Your task to perform on an android device: turn off smart reply in the gmail app Image 0: 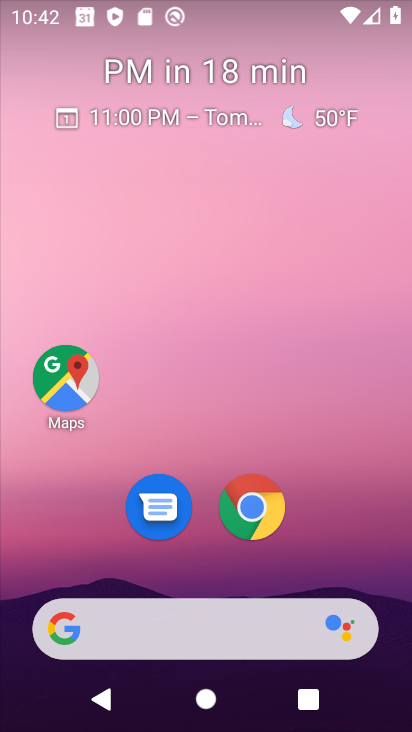
Step 0: drag from (335, 531) to (384, 137)
Your task to perform on an android device: turn off smart reply in the gmail app Image 1: 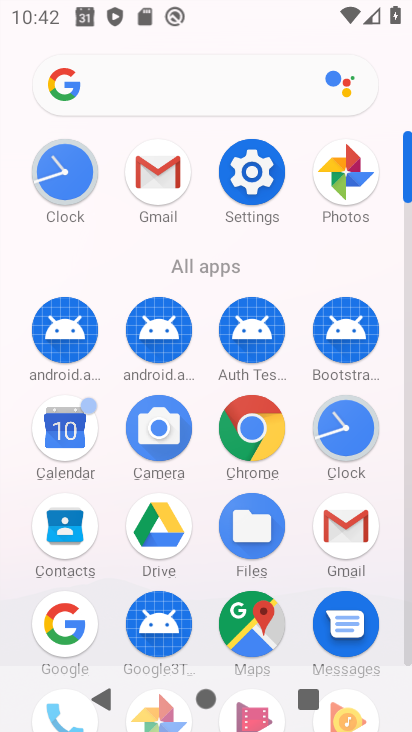
Step 1: click (161, 195)
Your task to perform on an android device: turn off smart reply in the gmail app Image 2: 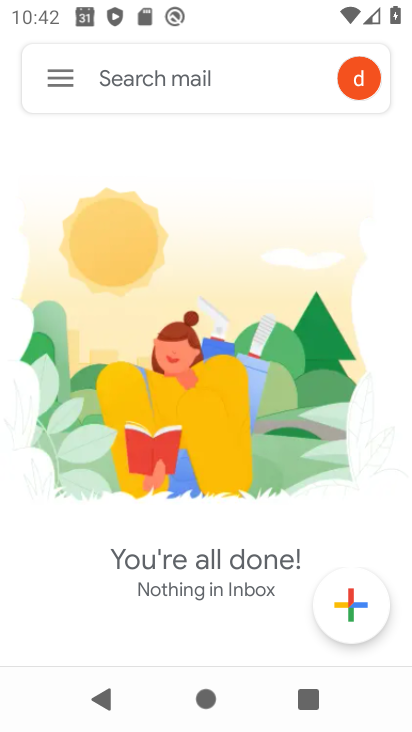
Step 2: click (61, 81)
Your task to perform on an android device: turn off smart reply in the gmail app Image 3: 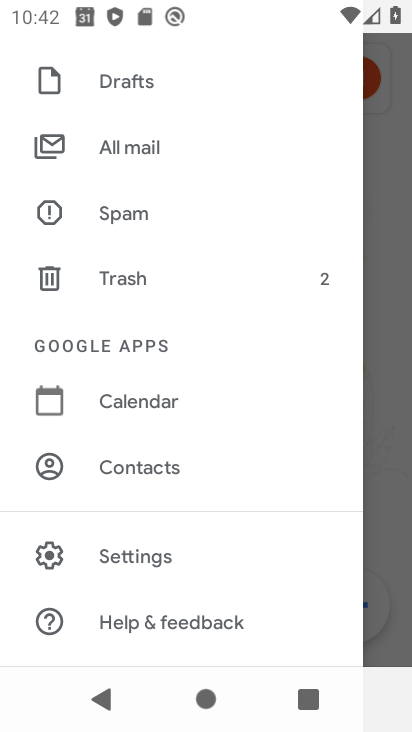
Step 3: click (188, 558)
Your task to perform on an android device: turn off smart reply in the gmail app Image 4: 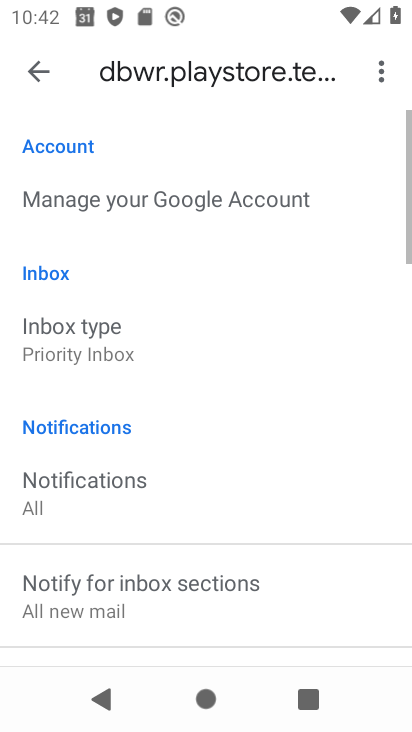
Step 4: drag from (188, 558) to (250, 220)
Your task to perform on an android device: turn off smart reply in the gmail app Image 5: 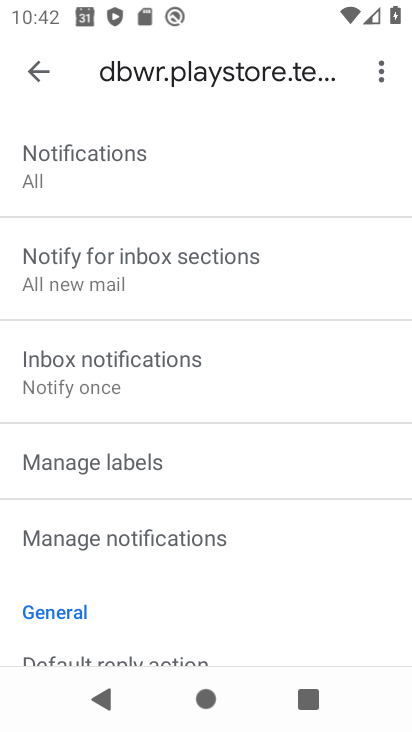
Step 5: drag from (231, 571) to (304, 152)
Your task to perform on an android device: turn off smart reply in the gmail app Image 6: 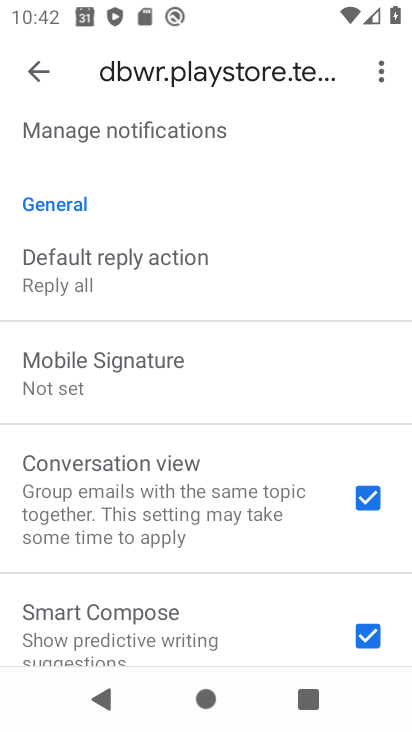
Step 6: drag from (273, 575) to (292, 259)
Your task to perform on an android device: turn off smart reply in the gmail app Image 7: 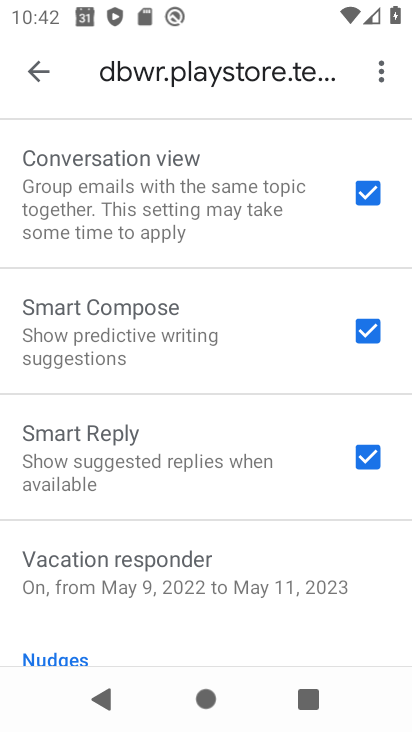
Step 7: click (370, 464)
Your task to perform on an android device: turn off smart reply in the gmail app Image 8: 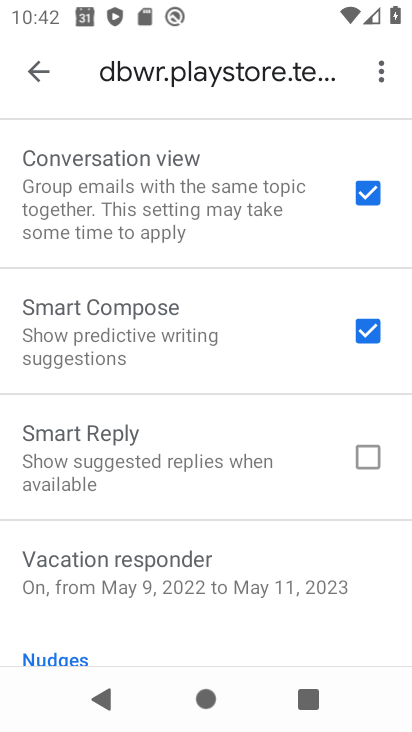
Step 8: task complete